Your task to perform on an android device: allow cookies in the chrome app Image 0: 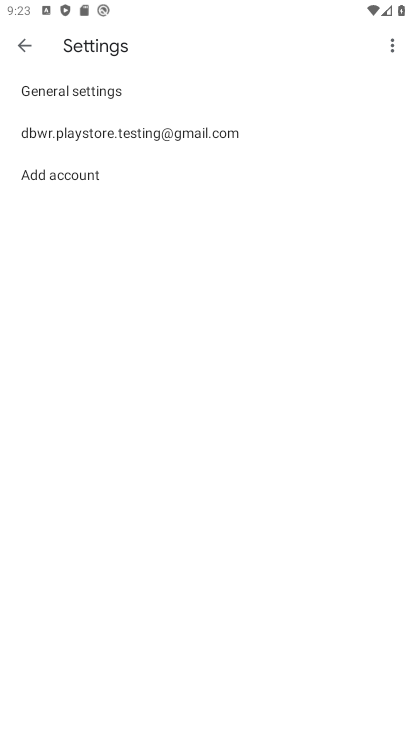
Step 0: press home button
Your task to perform on an android device: allow cookies in the chrome app Image 1: 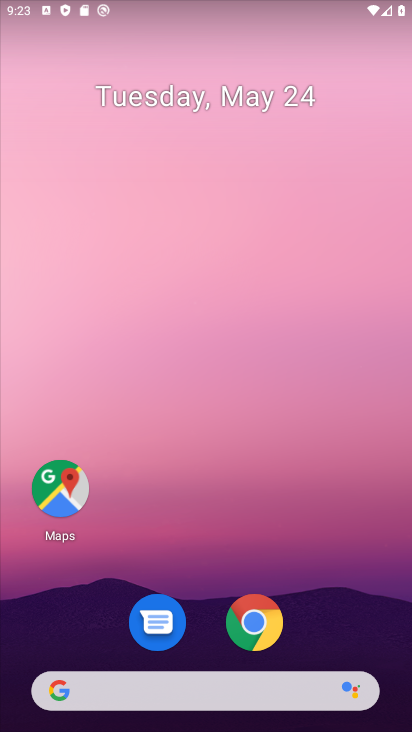
Step 1: drag from (253, 709) to (235, 90)
Your task to perform on an android device: allow cookies in the chrome app Image 2: 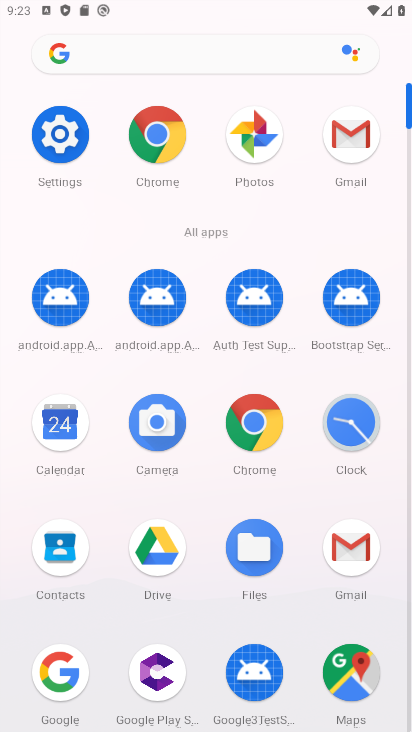
Step 2: click (152, 134)
Your task to perform on an android device: allow cookies in the chrome app Image 3: 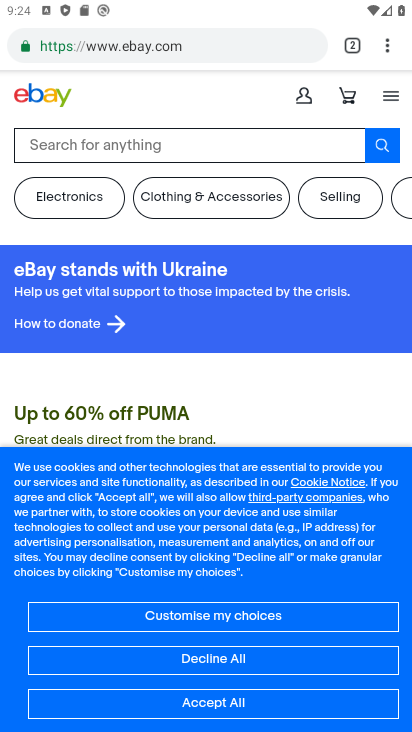
Step 3: click (381, 44)
Your task to perform on an android device: allow cookies in the chrome app Image 4: 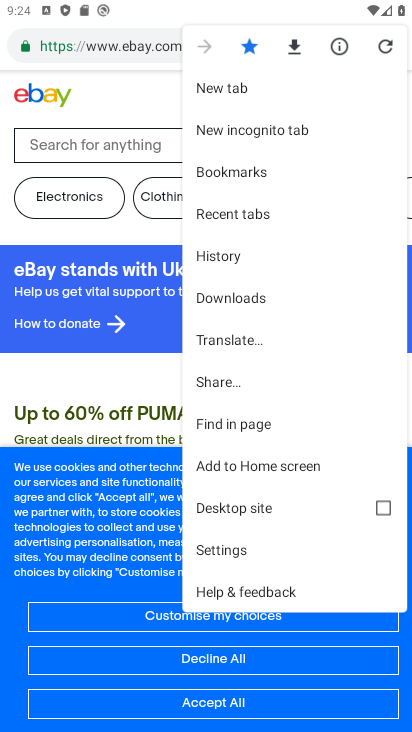
Step 4: click (240, 539)
Your task to perform on an android device: allow cookies in the chrome app Image 5: 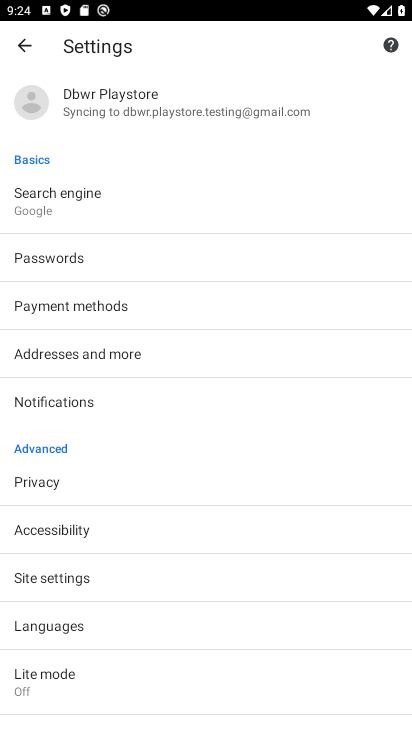
Step 5: click (64, 576)
Your task to perform on an android device: allow cookies in the chrome app Image 6: 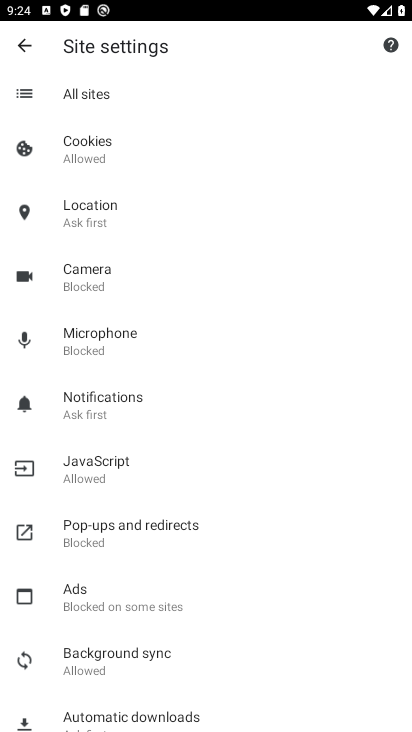
Step 6: click (122, 155)
Your task to perform on an android device: allow cookies in the chrome app Image 7: 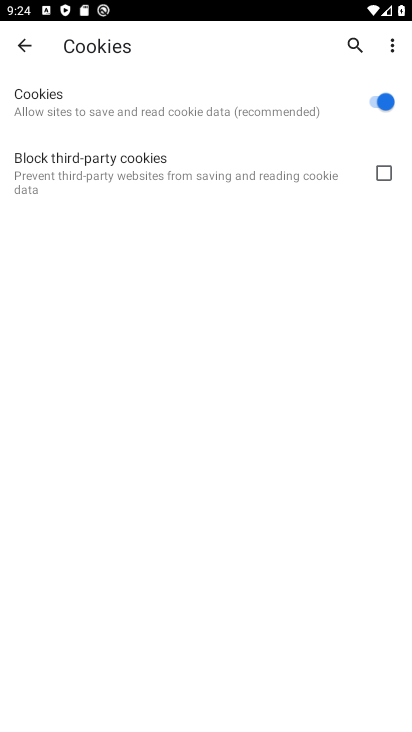
Step 7: click (373, 104)
Your task to perform on an android device: allow cookies in the chrome app Image 8: 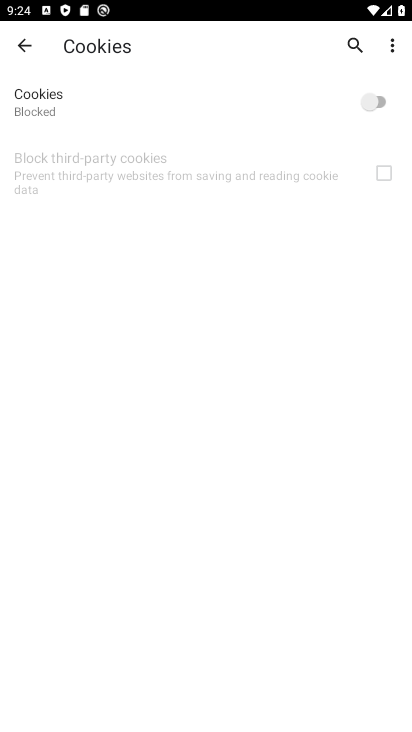
Step 8: click (371, 104)
Your task to perform on an android device: allow cookies in the chrome app Image 9: 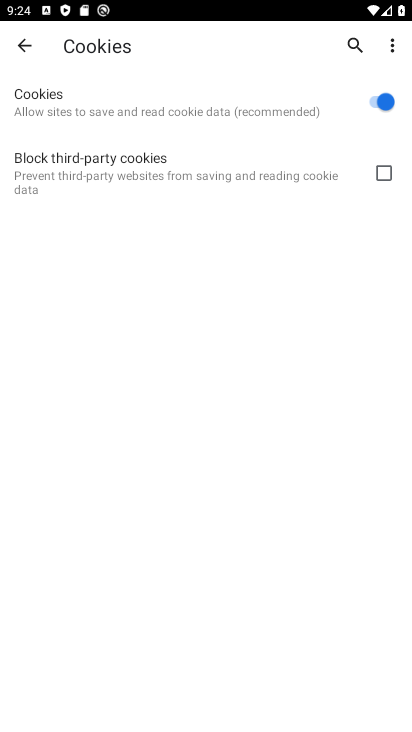
Step 9: task complete